Your task to perform on an android device: Is it going to rain this weekend? Image 0: 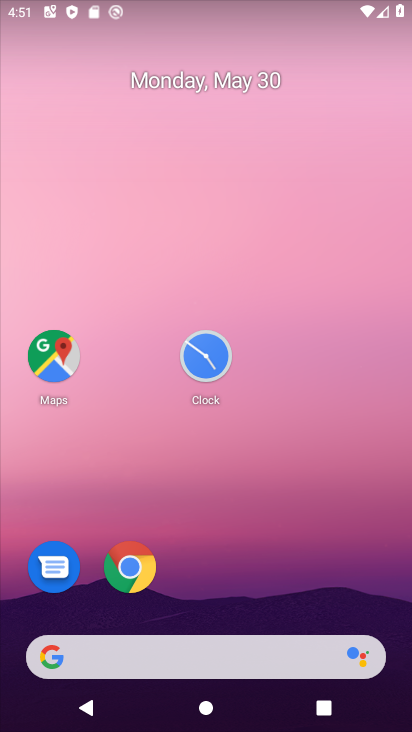
Step 0: drag from (257, 681) to (207, 75)
Your task to perform on an android device: Is it going to rain this weekend? Image 1: 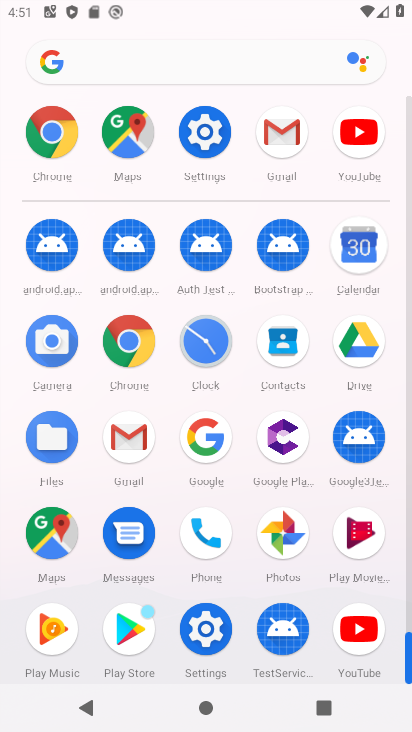
Step 1: press back button
Your task to perform on an android device: Is it going to rain this weekend? Image 2: 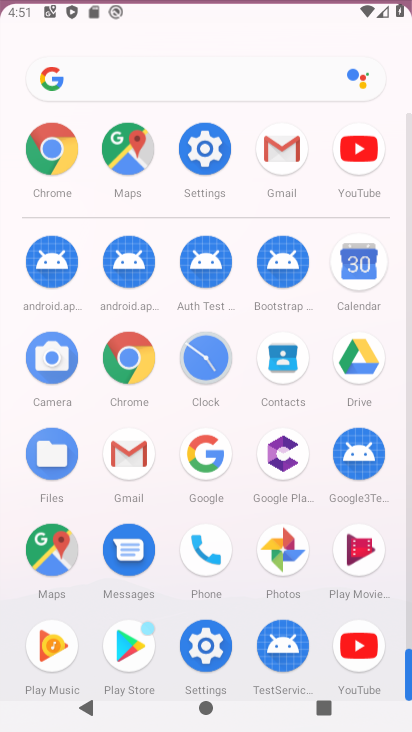
Step 2: press back button
Your task to perform on an android device: Is it going to rain this weekend? Image 3: 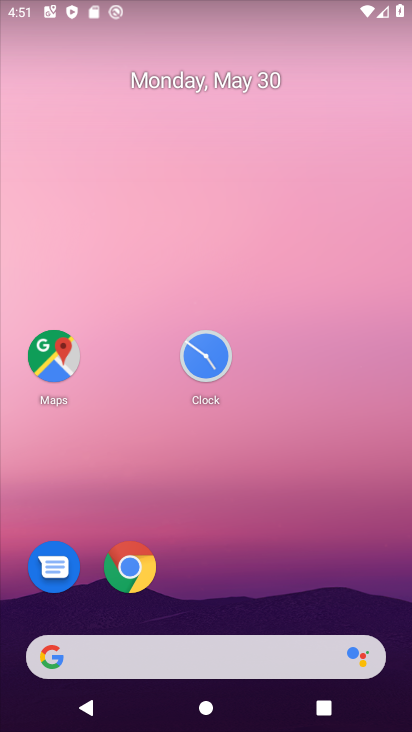
Step 3: press back button
Your task to perform on an android device: Is it going to rain this weekend? Image 4: 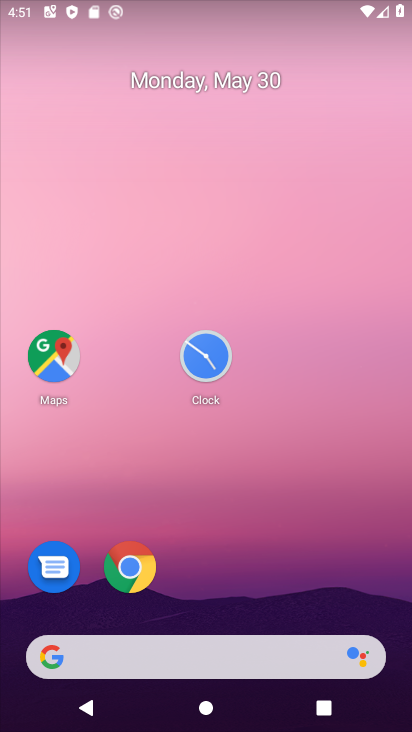
Step 4: drag from (26, 231) to (406, 418)
Your task to perform on an android device: Is it going to rain this weekend? Image 5: 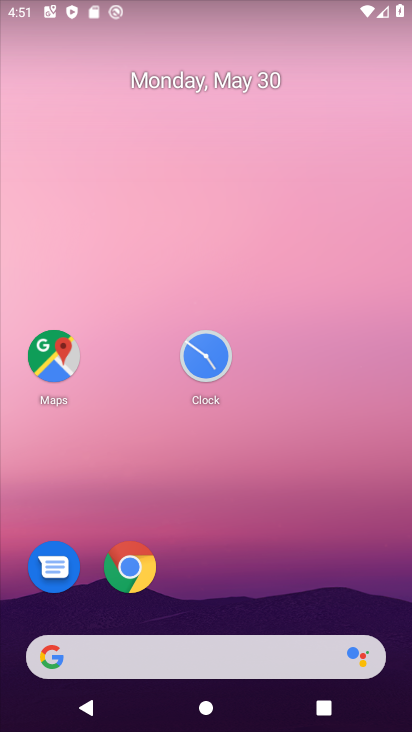
Step 5: drag from (60, 198) to (360, 388)
Your task to perform on an android device: Is it going to rain this weekend? Image 6: 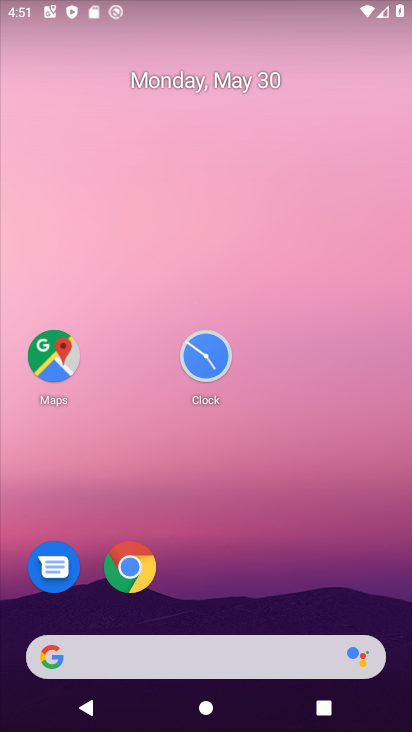
Step 6: drag from (12, 195) to (365, 258)
Your task to perform on an android device: Is it going to rain this weekend? Image 7: 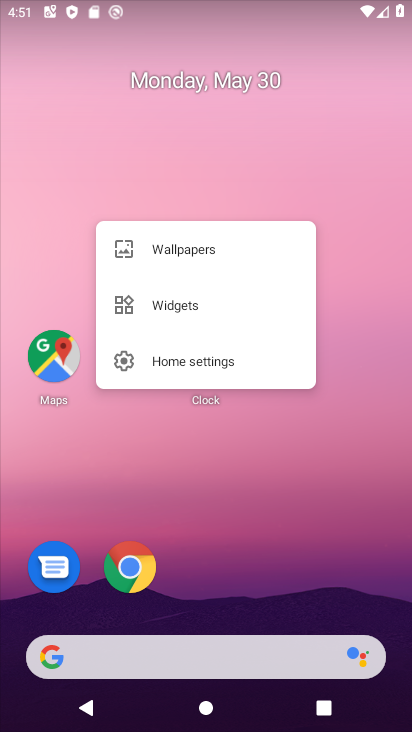
Step 7: drag from (16, 190) to (391, 392)
Your task to perform on an android device: Is it going to rain this weekend? Image 8: 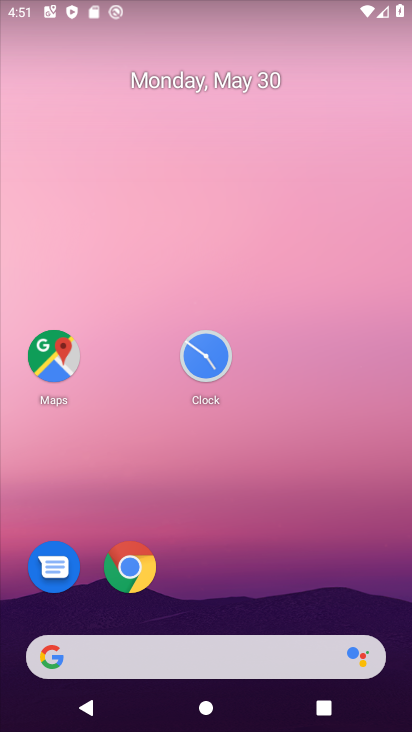
Step 8: drag from (11, 125) to (372, 251)
Your task to perform on an android device: Is it going to rain this weekend? Image 9: 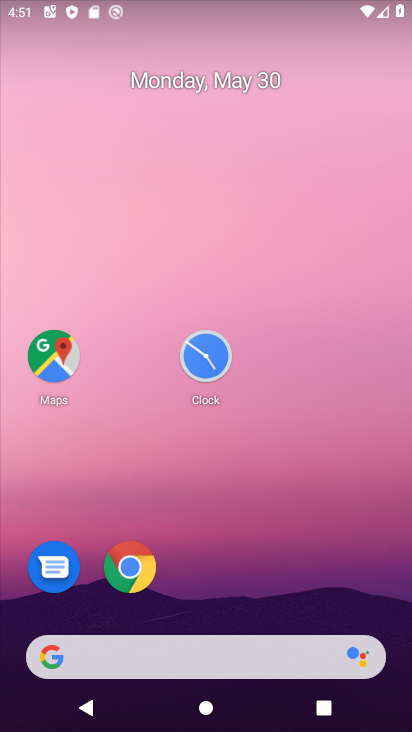
Step 9: drag from (64, 157) to (380, 457)
Your task to perform on an android device: Is it going to rain this weekend? Image 10: 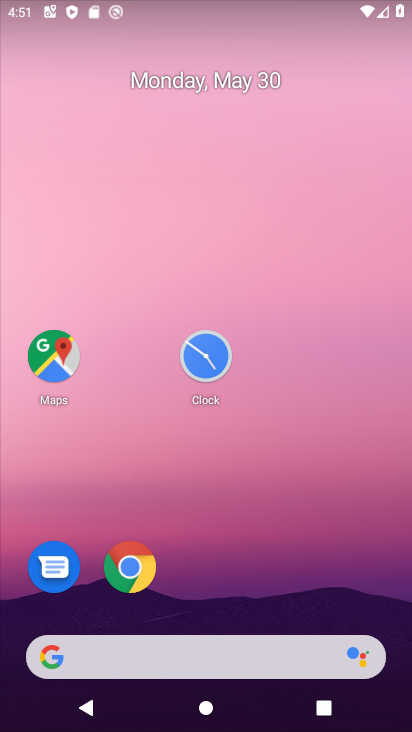
Step 10: drag from (15, 212) to (391, 483)
Your task to perform on an android device: Is it going to rain this weekend? Image 11: 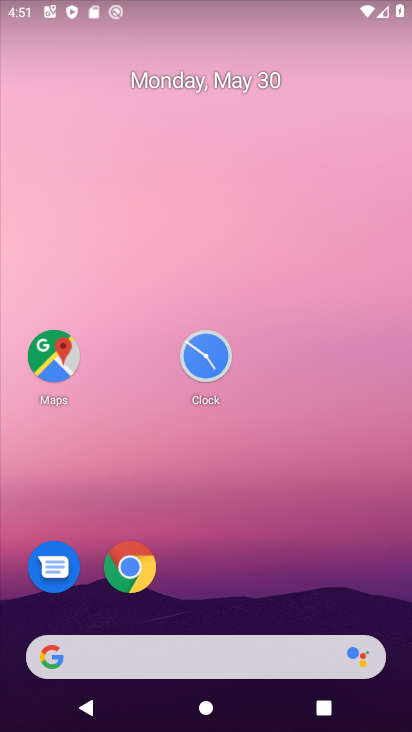
Step 11: drag from (6, 188) to (351, 569)
Your task to perform on an android device: Is it going to rain this weekend? Image 12: 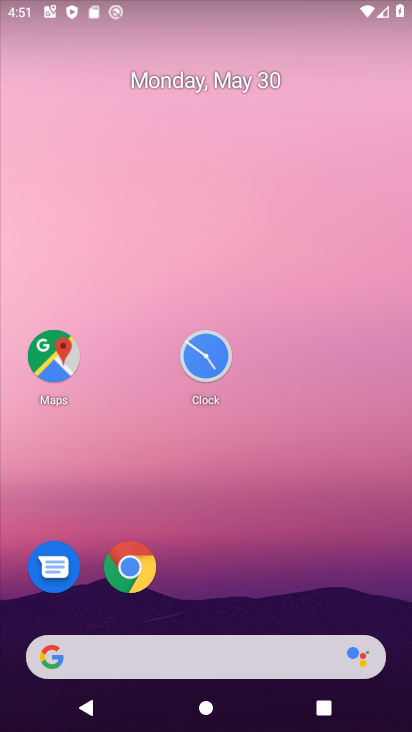
Step 12: drag from (8, 143) to (406, 411)
Your task to perform on an android device: Is it going to rain this weekend? Image 13: 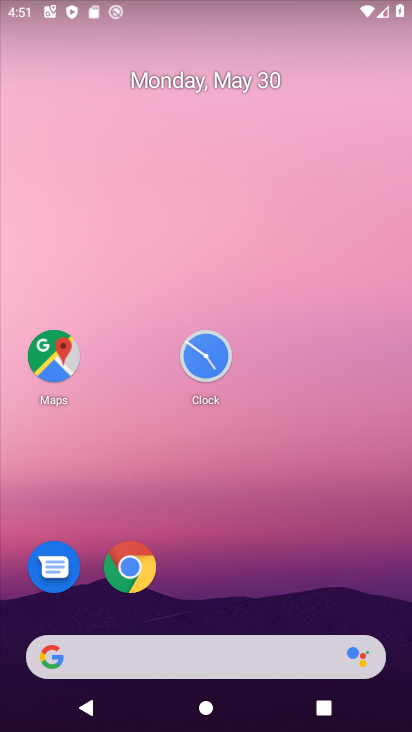
Step 13: drag from (221, 322) to (354, 349)
Your task to perform on an android device: Is it going to rain this weekend? Image 14: 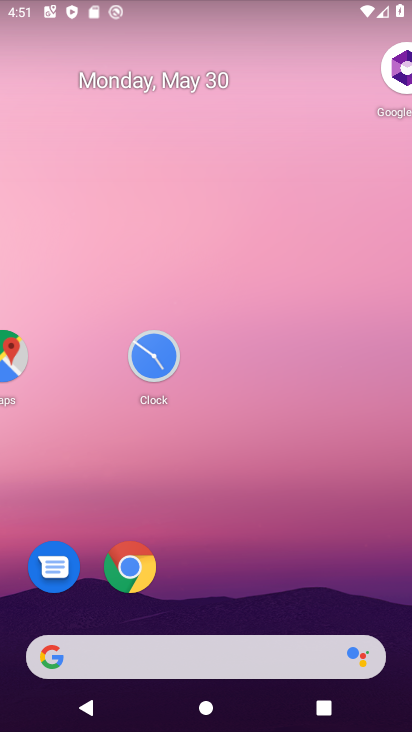
Step 14: drag from (138, 191) to (364, 416)
Your task to perform on an android device: Is it going to rain this weekend? Image 15: 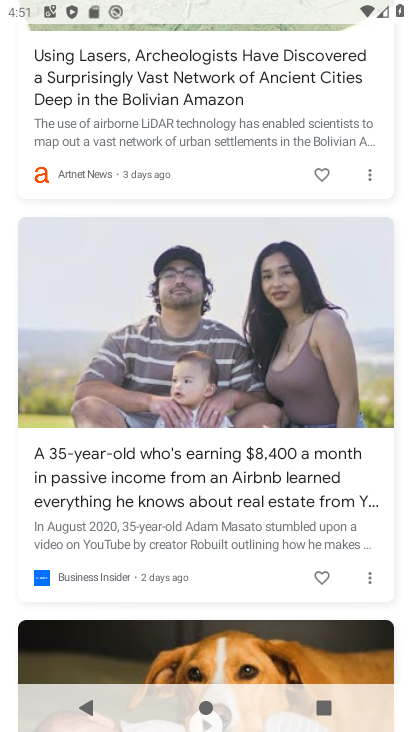
Step 15: drag from (16, 192) to (360, 504)
Your task to perform on an android device: Is it going to rain this weekend? Image 16: 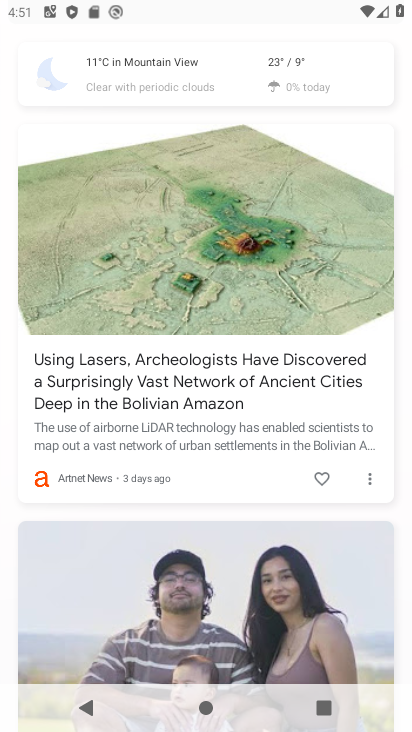
Step 16: drag from (234, 452) to (234, 573)
Your task to perform on an android device: Is it going to rain this weekend? Image 17: 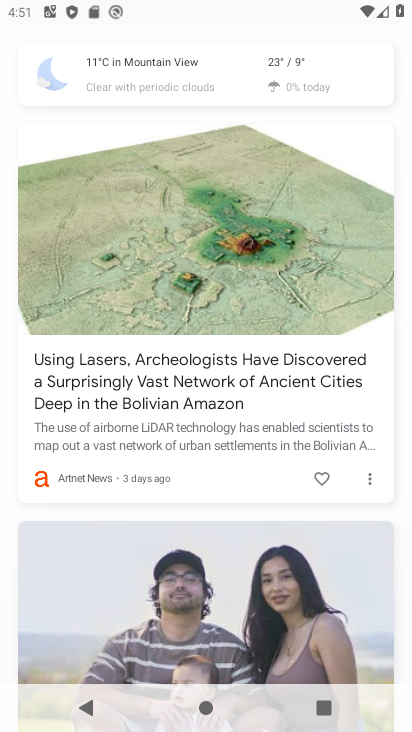
Step 17: drag from (244, 238) to (267, 589)
Your task to perform on an android device: Is it going to rain this weekend? Image 18: 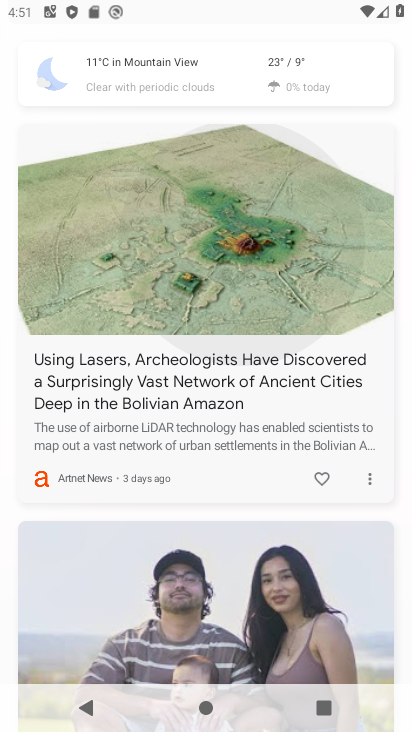
Step 18: drag from (147, 255) to (150, 363)
Your task to perform on an android device: Is it going to rain this weekend? Image 19: 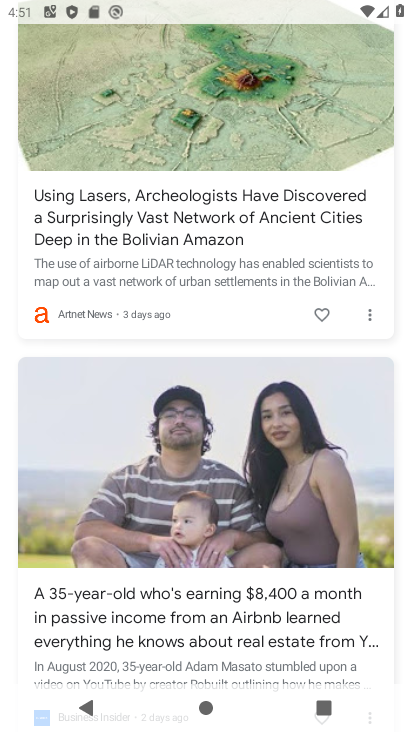
Step 19: click (177, 78)
Your task to perform on an android device: Is it going to rain this weekend? Image 20: 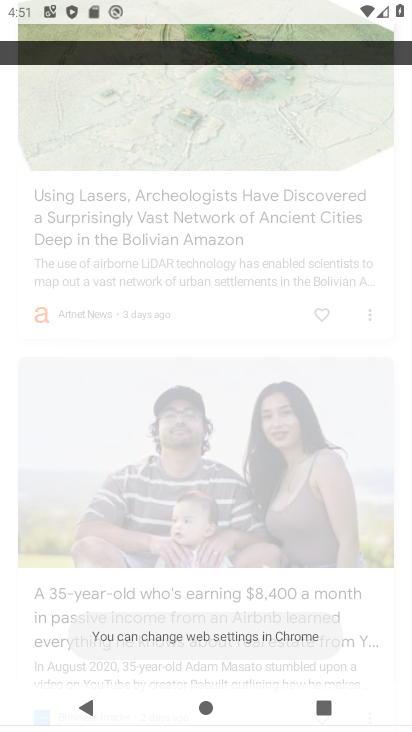
Step 20: drag from (164, 188) to (174, 497)
Your task to perform on an android device: Is it going to rain this weekend? Image 21: 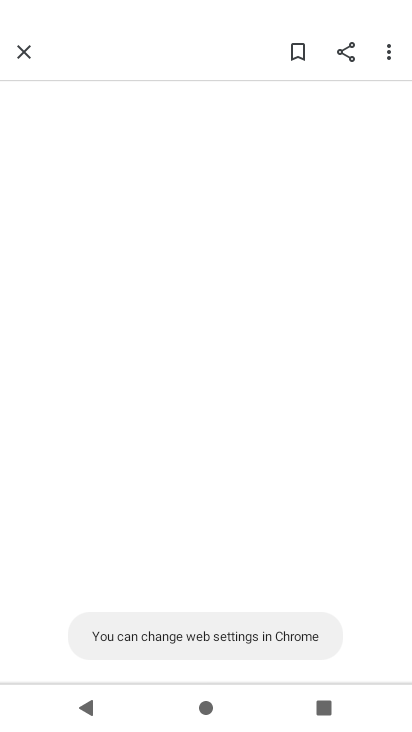
Step 21: drag from (240, 291) to (240, 440)
Your task to perform on an android device: Is it going to rain this weekend? Image 22: 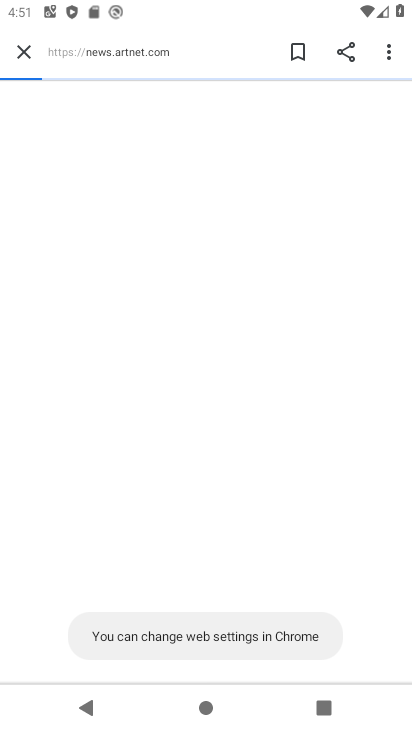
Step 22: drag from (239, 182) to (211, 451)
Your task to perform on an android device: Is it going to rain this weekend? Image 23: 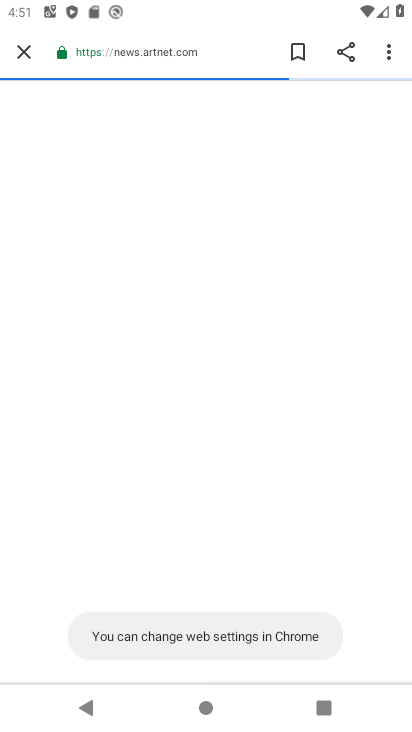
Step 23: drag from (203, 132) to (169, 526)
Your task to perform on an android device: Is it going to rain this weekend? Image 24: 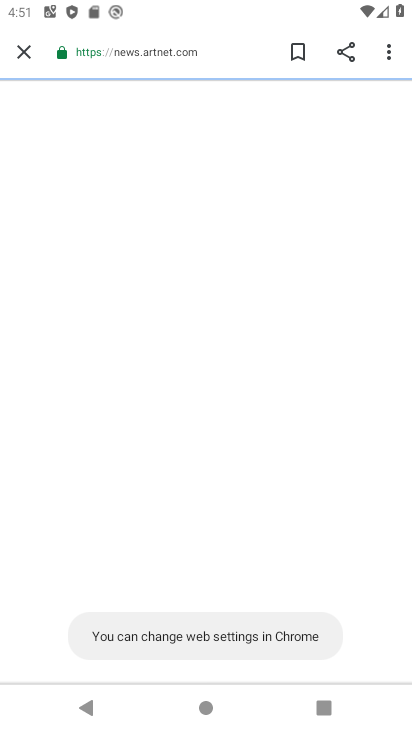
Step 24: click (26, 47)
Your task to perform on an android device: Is it going to rain this weekend? Image 25: 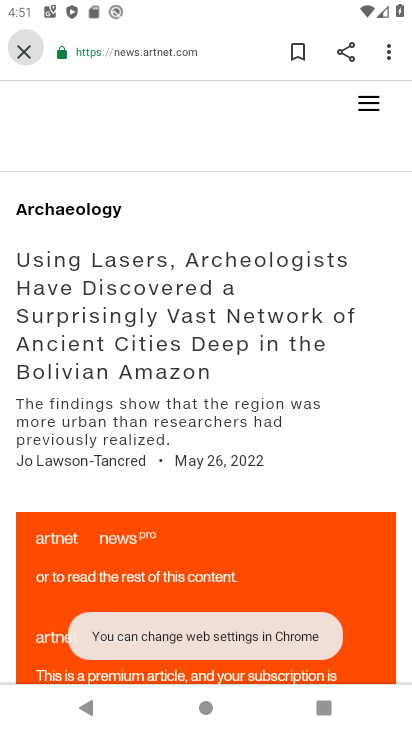
Step 25: click (26, 47)
Your task to perform on an android device: Is it going to rain this weekend? Image 26: 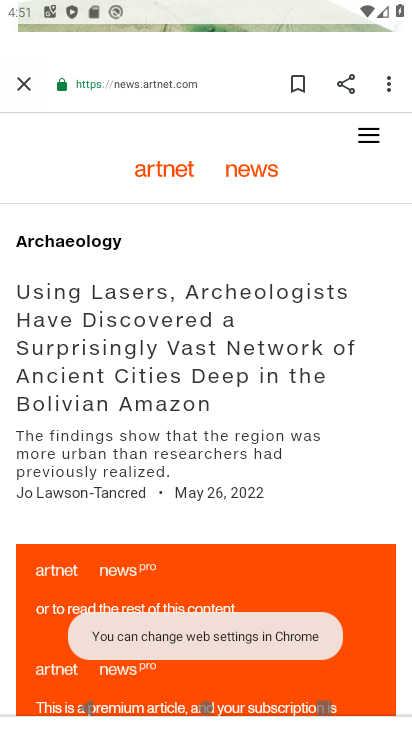
Step 26: click (25, 48)
Your task to perform on an android device: Is it going to rain this weekend? Image 27: 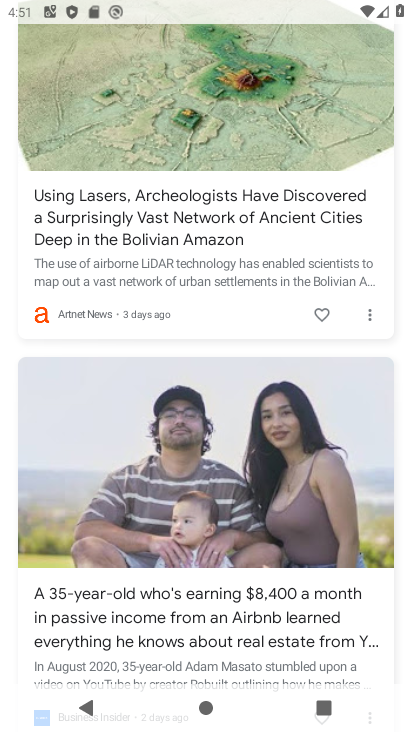
Step 27: drag from (183, 108) to (179, 411)
Your task to perform on an android device: Is it going to rain this weekend? Image 28: 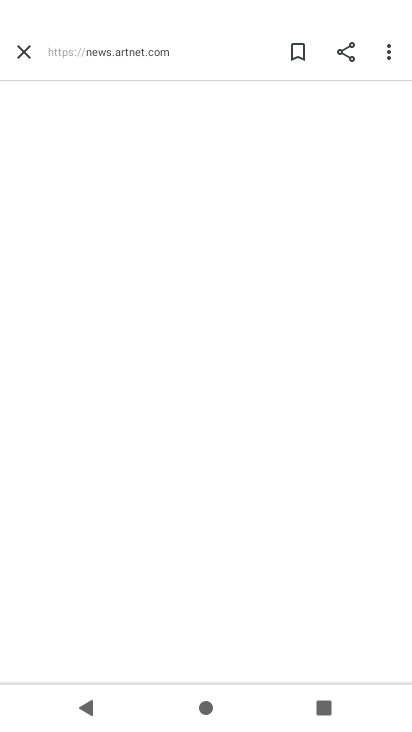
Step 28: drag from (179, 109) to (253, 507)
Your task to perform on an android device: Is it going to rain this weekend? Image 29: 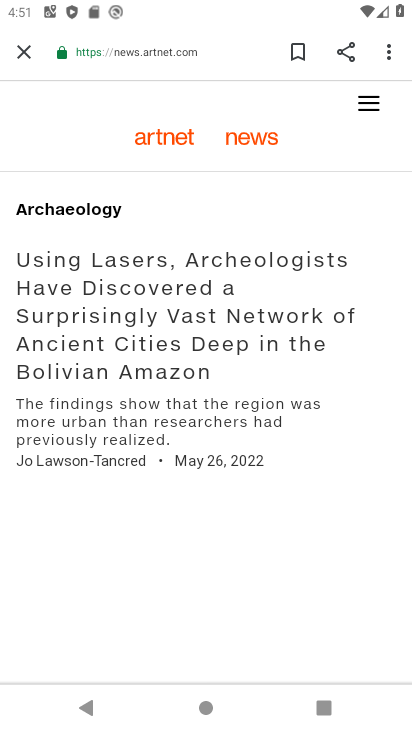
Step 29: click (19, 57)
Your task to perform on an android device: Is it going to rain this weekend? Image 30: 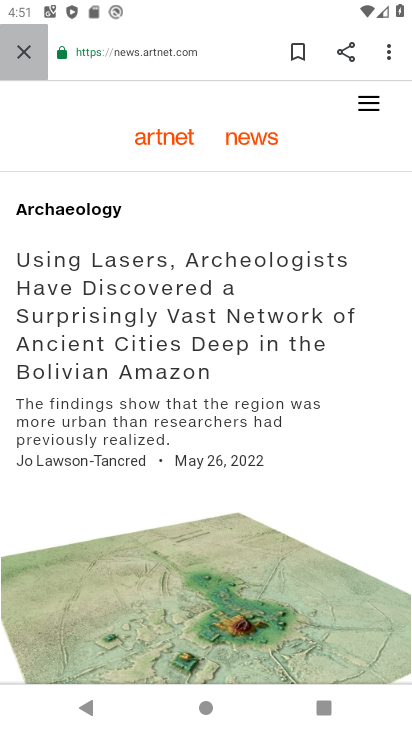
Step 30: click (24, 58)
Your task to perform on an android device: Is it going to rain this weekend? Image 31: 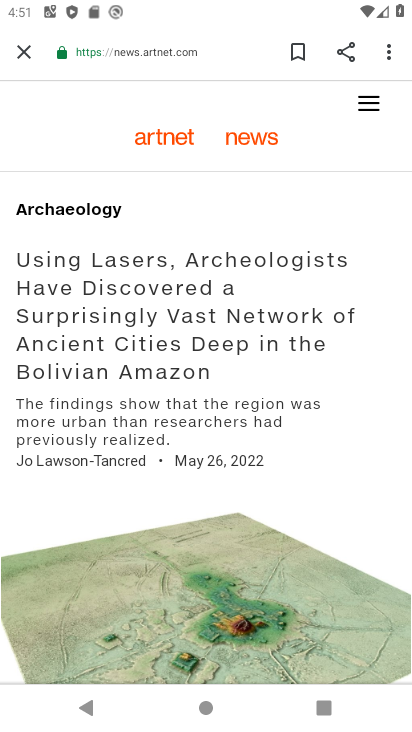
Step 31: click (25, 57)
Your task to perform on an android device: Is it going to rain this weekend? Image 32: 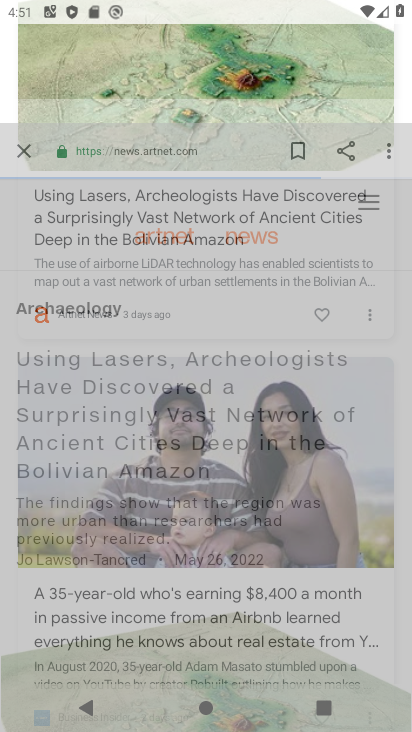
Step 32: click (24, 57)
Your task to perform on an android device: Is it going to rain this weekend? Image 33: 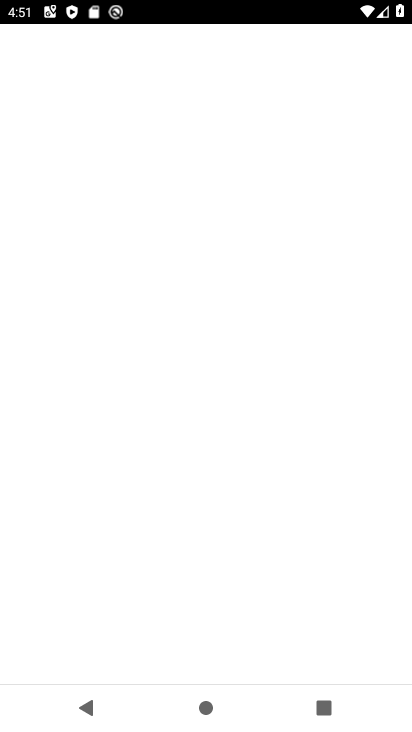
Step 33: drag from (167, 230) to (184, 498)
Your task to perform on an android device: Is it going to rain this weekend? Image 34: 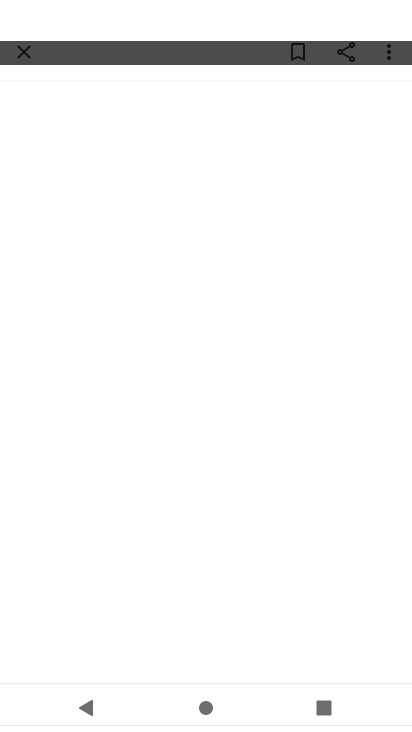
Step 34: drag from (240, 258) to (241, 502)
Your task to perform on an android device: Is it going to rain this weekend? Image 35: 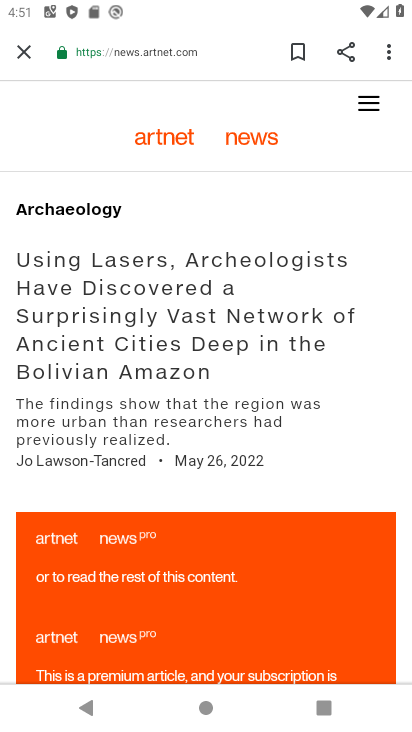
Step 35: click (35, 49)
Your task to perform on an android device: Is it going to rain this weekend? Image 36: 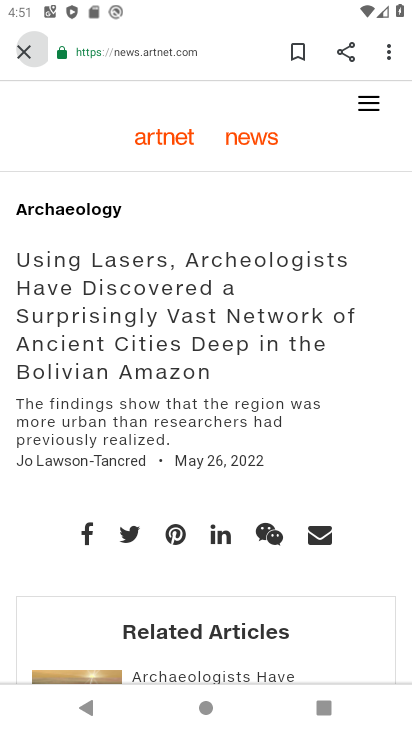
Step 36: click (27, 50)
Your task to perform on an android device: Is it going to rain this weekend? Image 37: 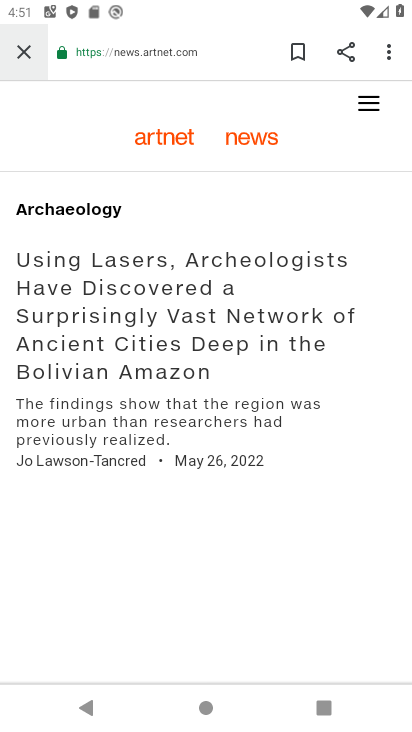
Step 37: click (21, 50)
Your task to perform on an android device: Is it going to rain this weekend? Image 38: 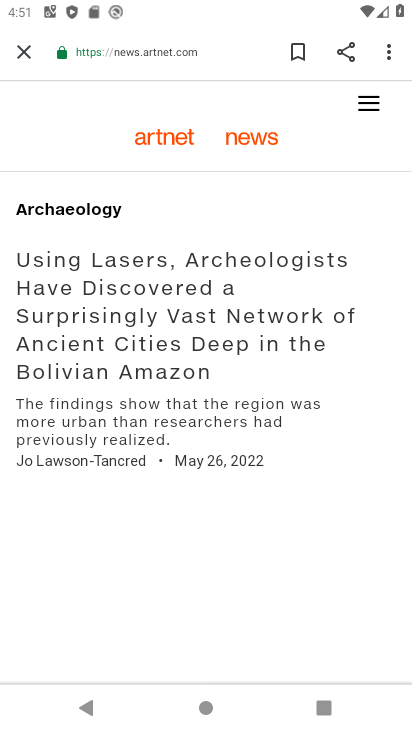
Step 38: click (21, 50)
Your task to perform on an android device: Is it going to rain this weekend? Image 39: 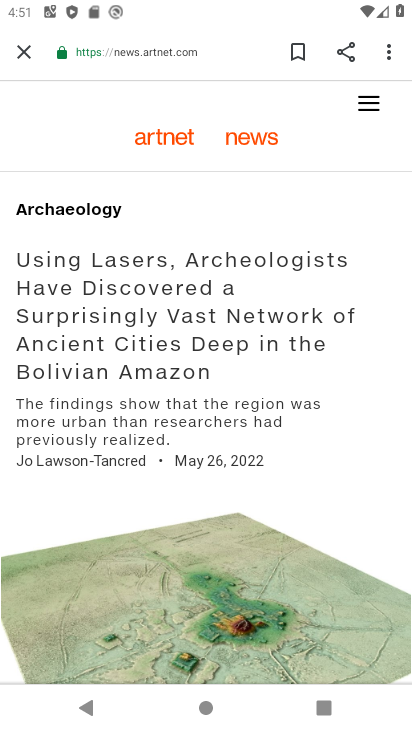
Step 39: task complete